Your task to perform on an android device: Open Maps and search for coffee Image 0: 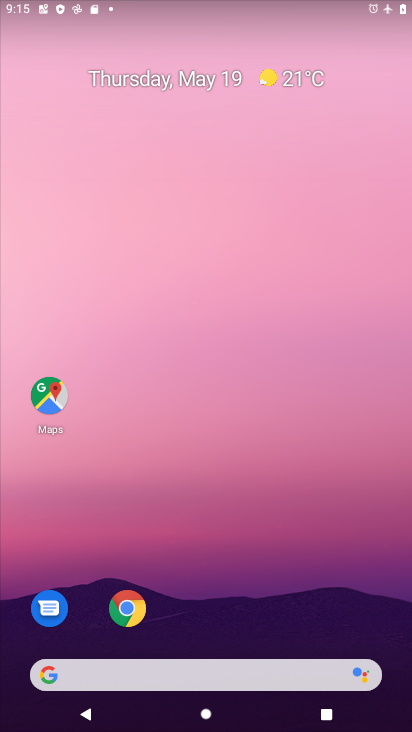
Step 0: click (46, 394)
Your task to perform on an android device: Open Maps and search for coffee Image 1: 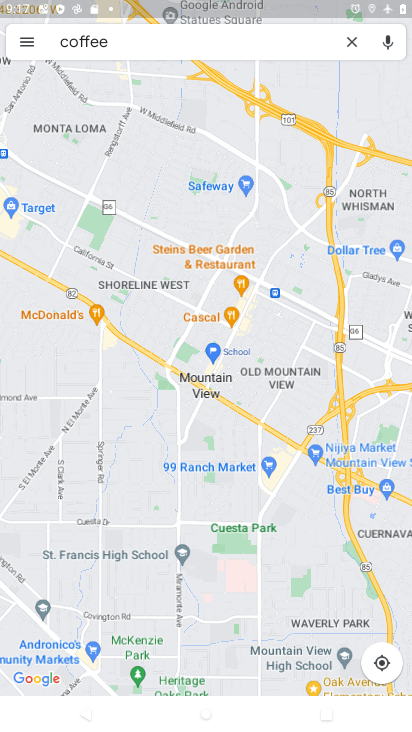
Step 1: press home button
Your task to perform on an android device: Open Maps and search for coffee Image 2: 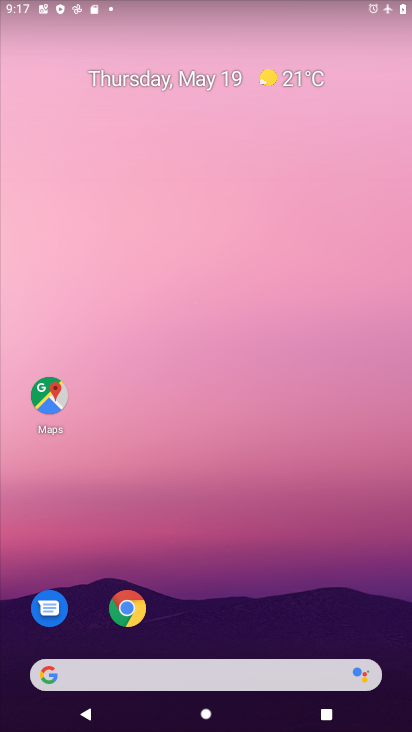
Step 2: click (35, 396)
Your task to perform on an android device: Open Maps and search for coffee Image 3: 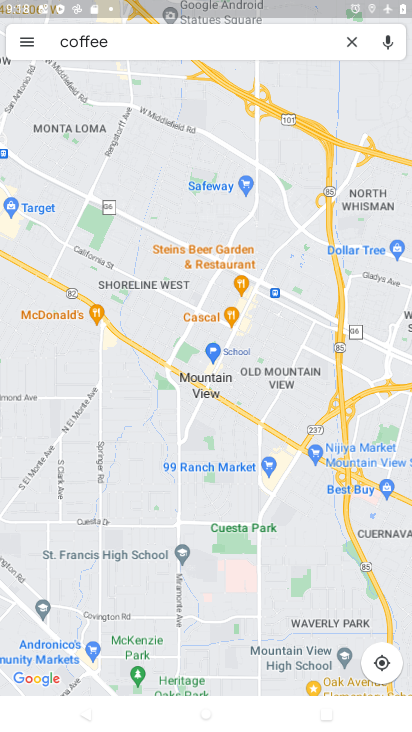
Step 3: task complete